Your task to perform on an android device: Open Google Maps Image 0: 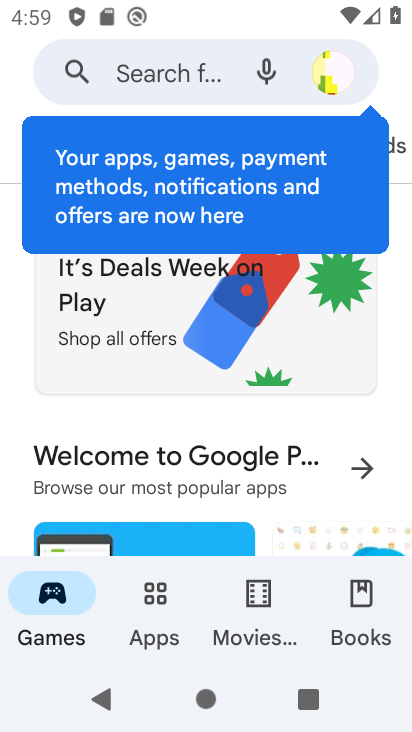
Step 0: press home button
Your task to perform on an android device: Open Google Maps Image 1: 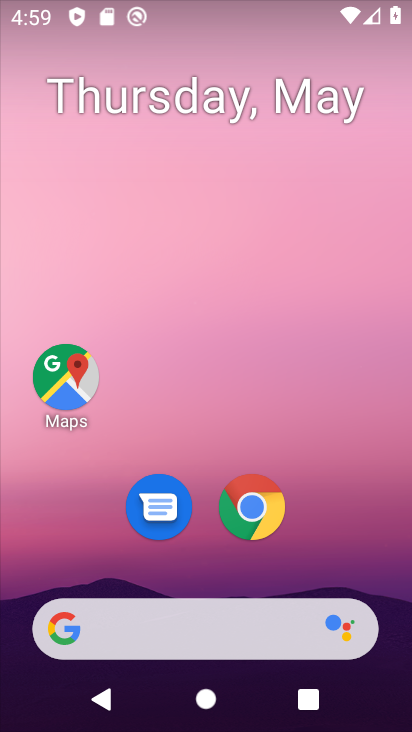
Step 1: click (64, 385)
Your task to perform on an android device: Open Google Maps Image 2: 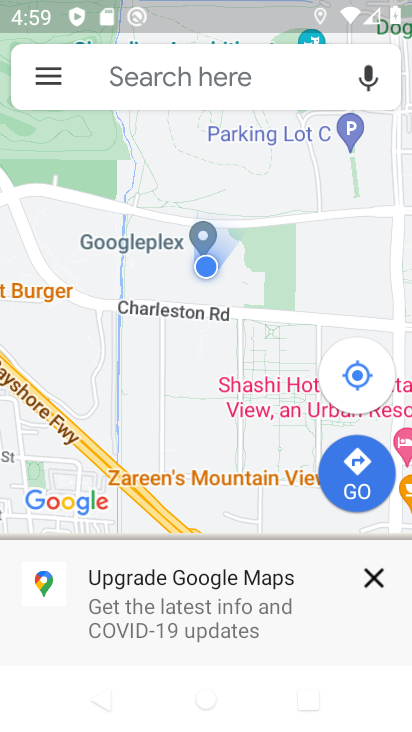
Step 2: task complete